Your task to perform on an android device: Open Chrome and go to the settings page Image 0: 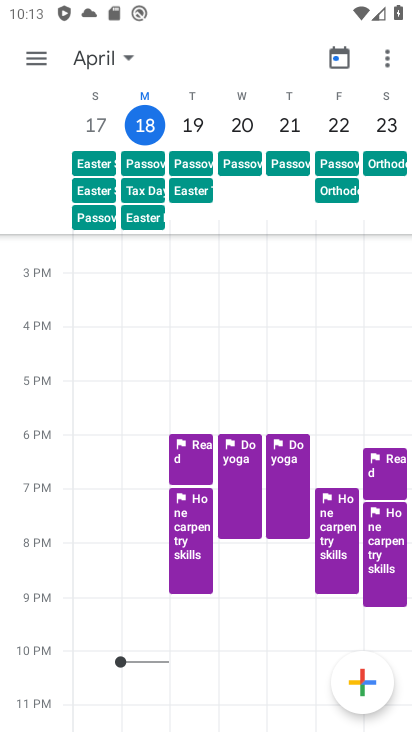
Step 0: press home button
Your task to perform on an android device: Open Chrome and go to the settings page Image 1: 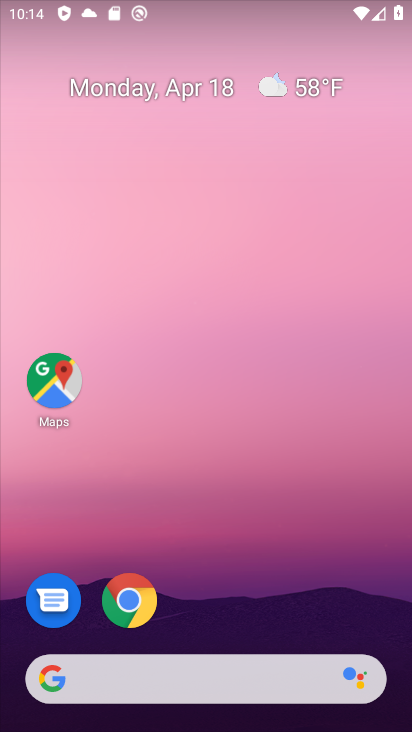
Step 1: click (127, 602)
Your task to perform on an android device: Open Chrome and go to the settings page Image 2: 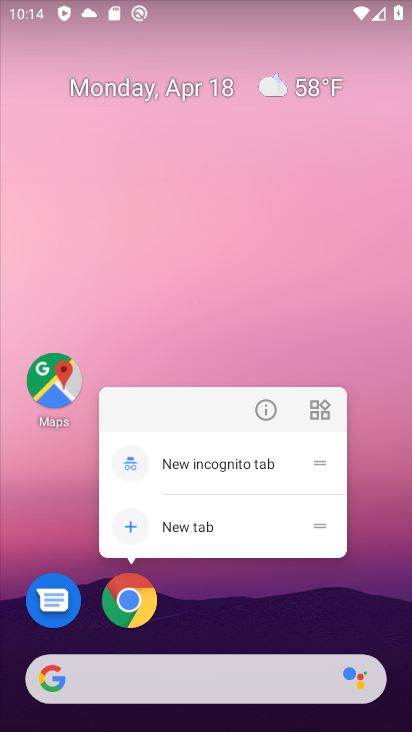
Step 2: click (132, 604)
Your task to perform on an android device: Open Chrome and go to the settings page Image 3: 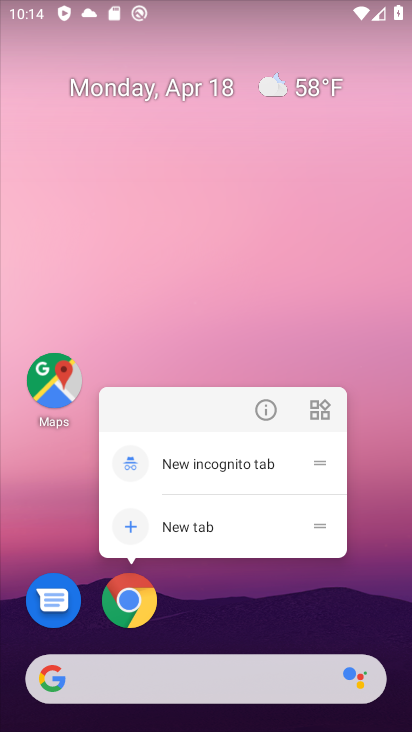
Step 3: click (316, 283)
Your task to perform on an android device: Open Chrome and go to the settings page Image 4: 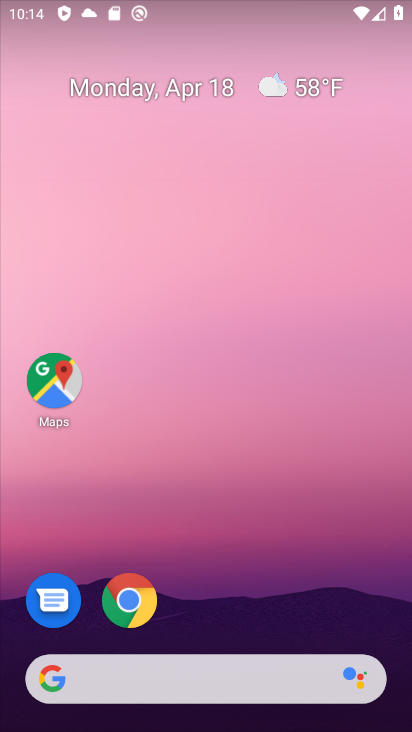
Step 4: drag from (240, 600) to (249, 6)
Your task to perform on an android device: Open Chrome and go to the settings page Image 5: 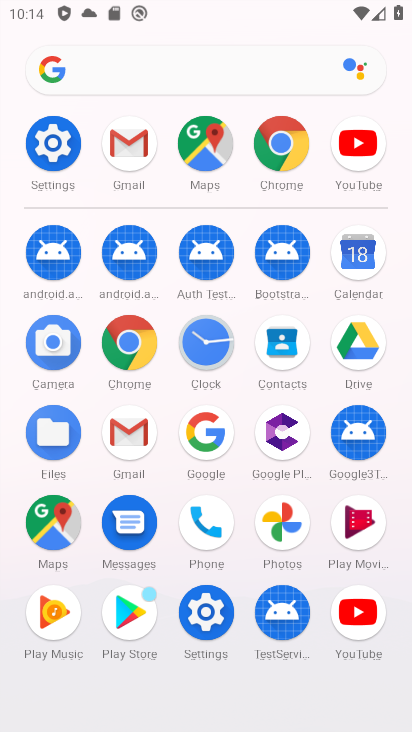
Step 5: click (288, 147)
Your task to perform on an android device: Open Chrome and go to the settings page Image 6: 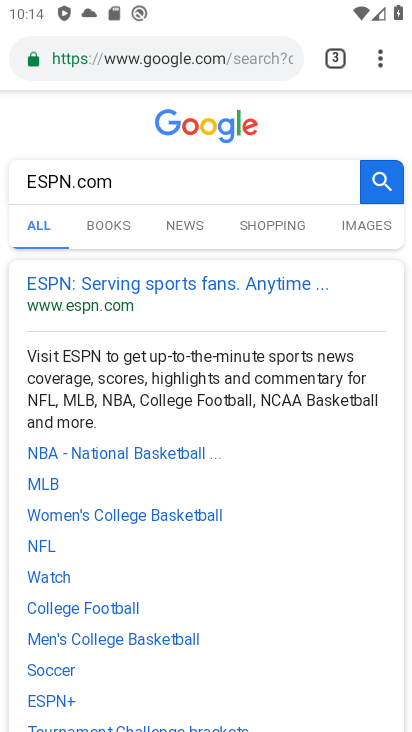
Step 6: click (371, 62)
Your task to perform on an android device: Open Chrome and go to the settings page Image 7: 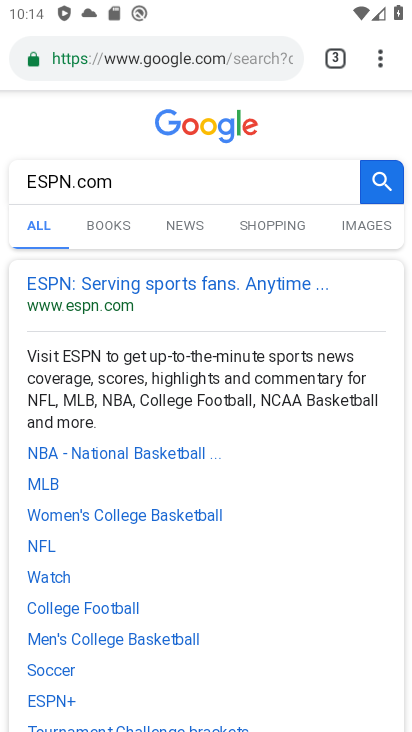
Step 7: click (379, 63)
Your task to perform on an android device: Open Chrome and go to the settings page Image 8: 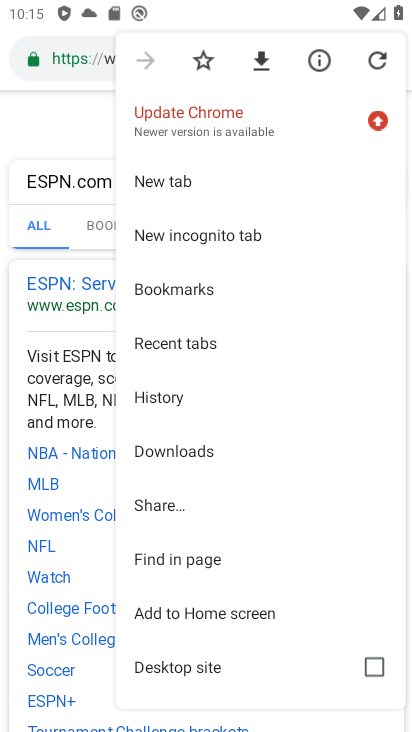
Step 8: drag from (211, 638) to (227, 189)
Your task to perform on an android device: Open Chrome and go to the settings page Image 9: 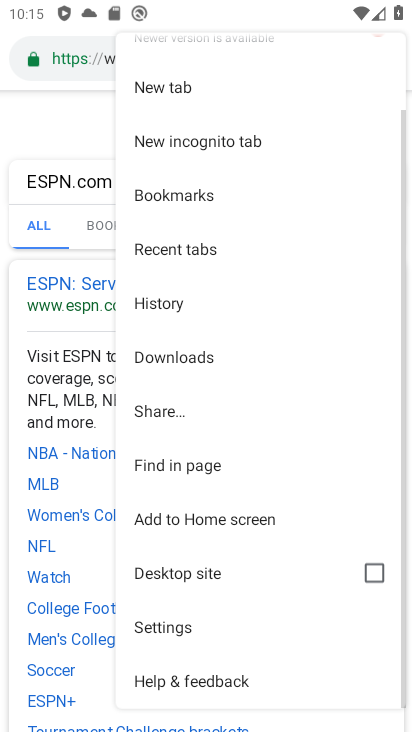
Step 9: click (160, 622)
Your task to perform on an android device: Open Chrome and go to the settings page Image 10: 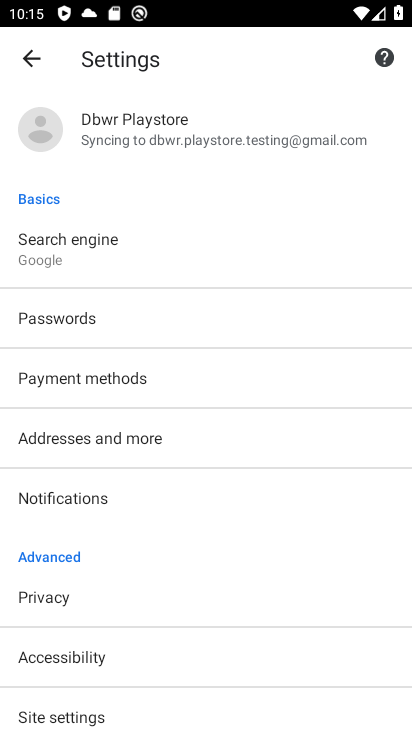
Step 10: task complete